Your task to perform on an android device: turn vacation reply on in the gmail app Image 0: 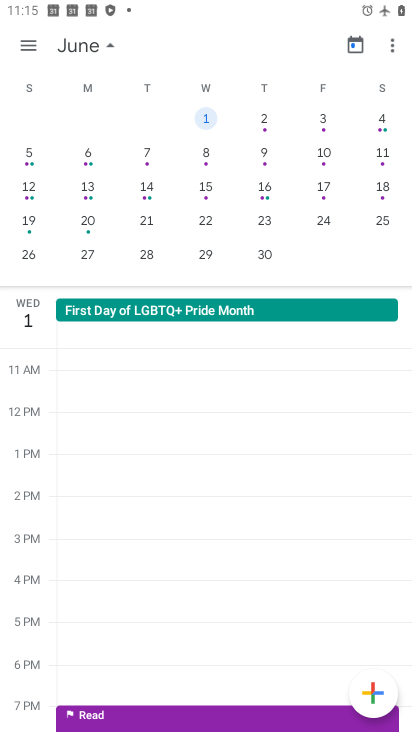
Step 0: press home button
Your task to perform on an android device: turn vacation reply on in the gmail app Image 1: 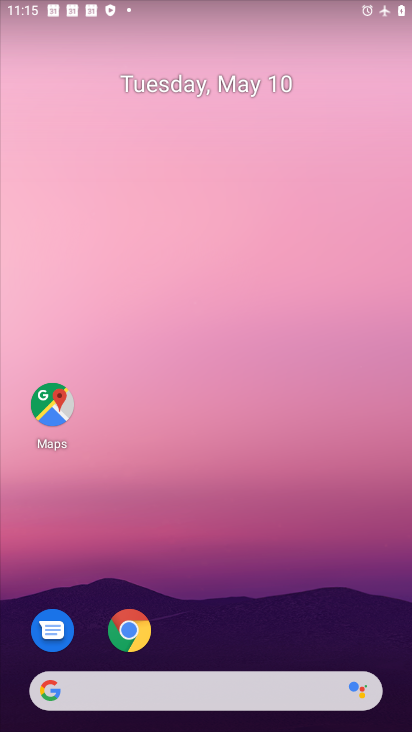
Step 1: drag from (159, 717) to (274, 44)
Your task to perform on an android device: turn vacation reply on in the gmail app Image 2: 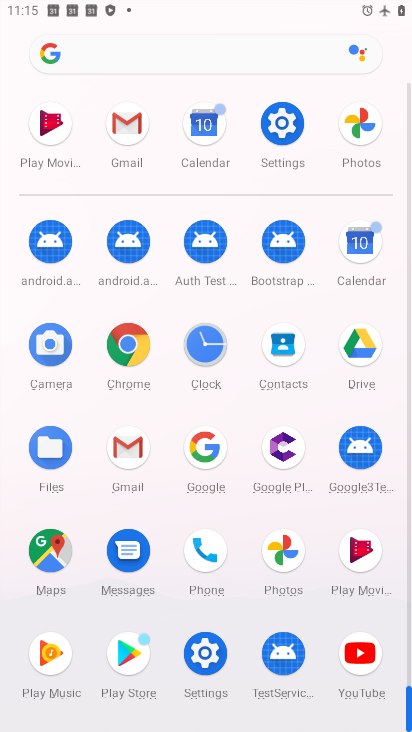
Step 2: click (138, 139)
Your task to perform on an android device: turn vacation reply on in the gmail app Image 3: 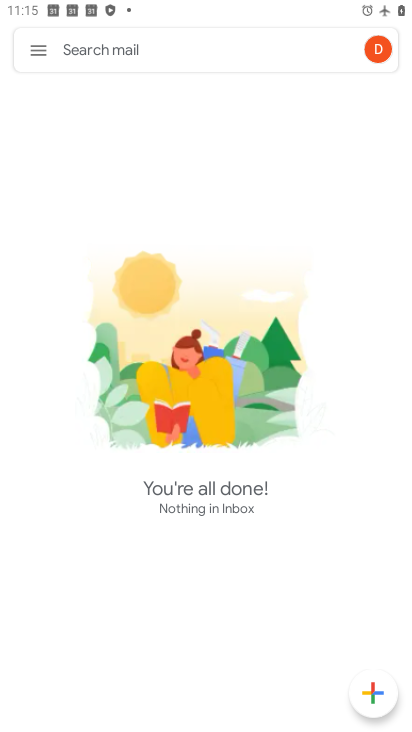
Step 3: click (36, 45)
Your task to perform on an android device: turn vacation reply on in the gmail app Image 4: 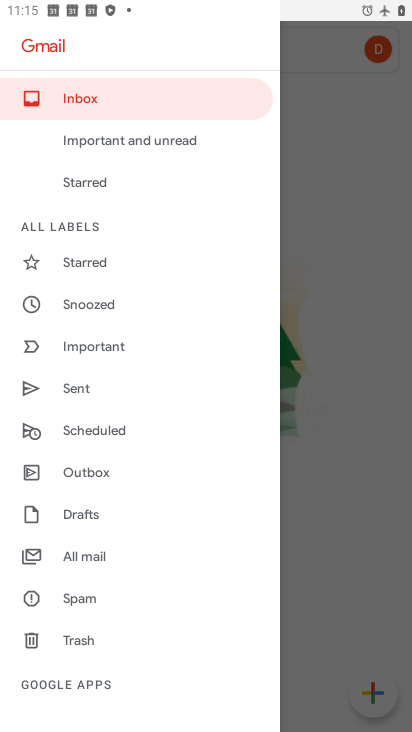
Step 4: drag from (144, 681) to (142, 22)
Your task to perform on an android device: turn vacation reply on in the gmail app Image 5: 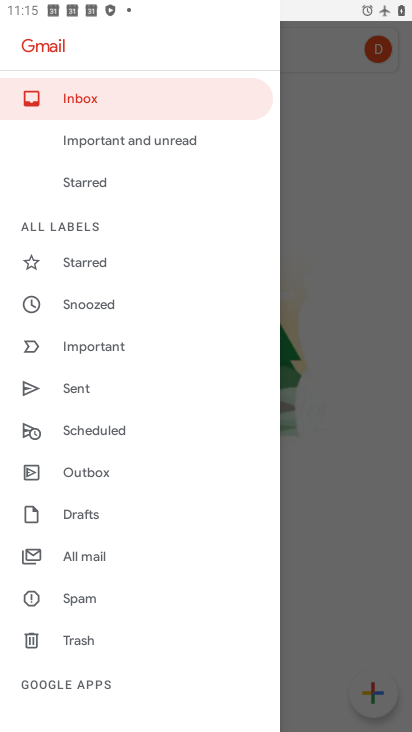
Step 5: drag from (183, 673) to (144, 9)
Your task to perform on an android device: turn vacation reply on in the gmail app Image 6: 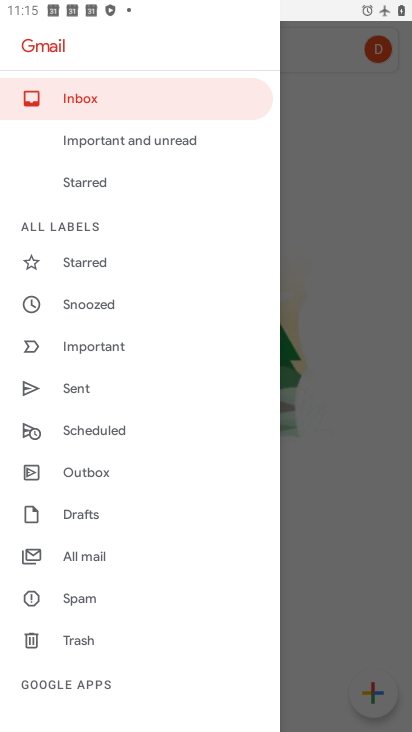
Step 6: drag from (26, 643) to (143, 43)
Your task to perform on an android device: turn vacation reply on in the gmail app Image 7: 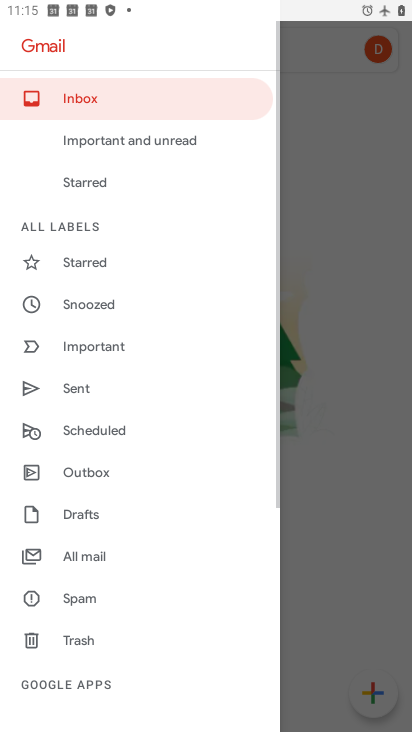
Step 7: drag from (90, 648) to (82, 68)
Your task to perform on an android device: turn vacation reply on in the gmail app Image 8: 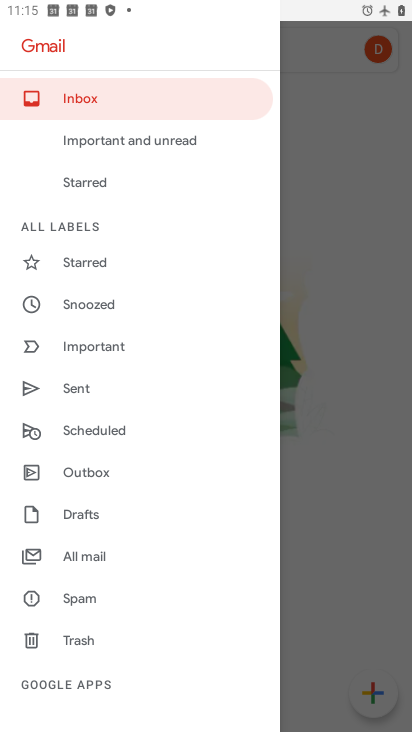
Step 8: drag from (51, 666) to (132, 1)
Your task to perform on an android device: turn vacation reply on in the gmail app Image 9: 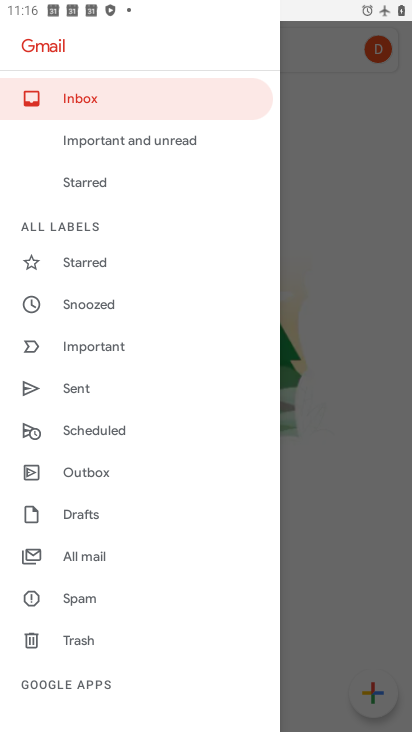
Step 9: drag from (97, 668) to (125, 5)
Your task to perform on an android device: turn vacation reply on in the gmail app Image 10: 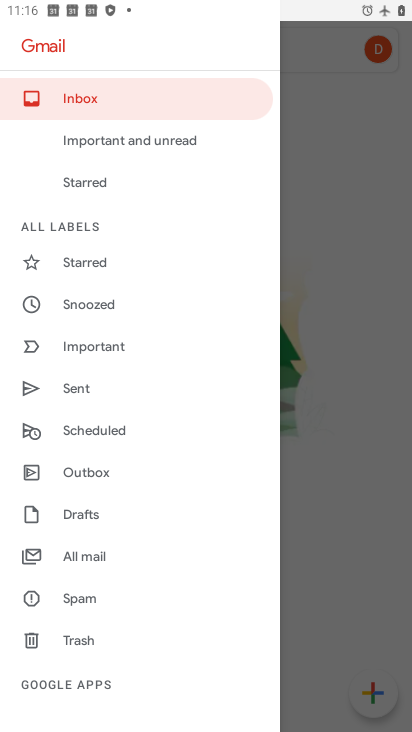
Step 10: drag from (90, 631) to (7, 74)
Your task to perform on an android device: turn vacation reply on in the gmail app Image 11: 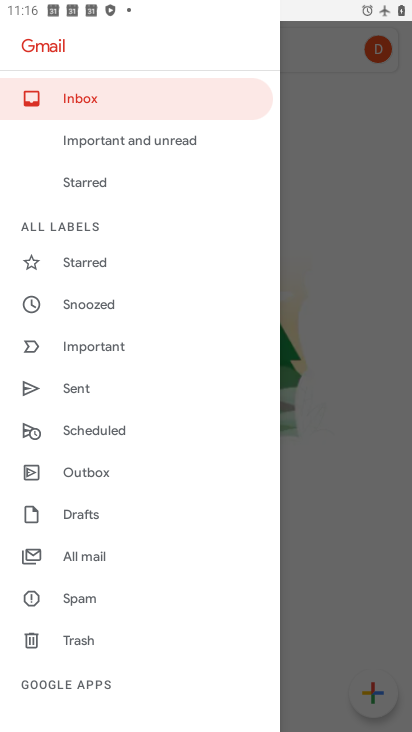
Step 11: drag from (62, 518) to (166, 0)
Your task to perform on an android device: turn vacation reply on in the gmail app Image 12: 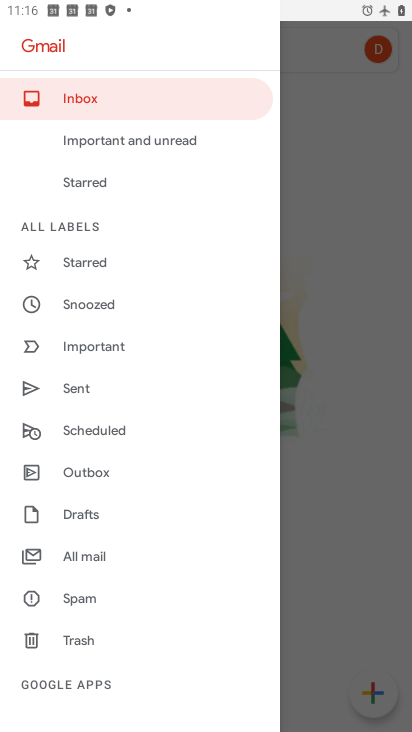
Step 12: drag from (62, 558) to (136, 3)
Your task to perform on an android device: turn vacation reply on in the gmail app Image 13: 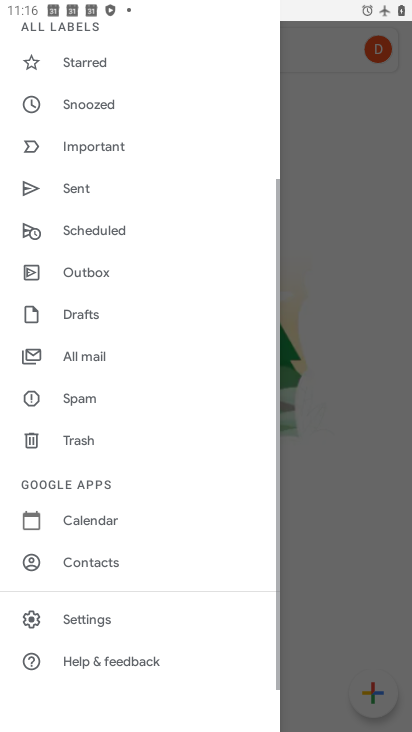
Step 13: click (78, 621)
Your task to perform on an android device: turn vacation reply on in the gmail app Image 14: 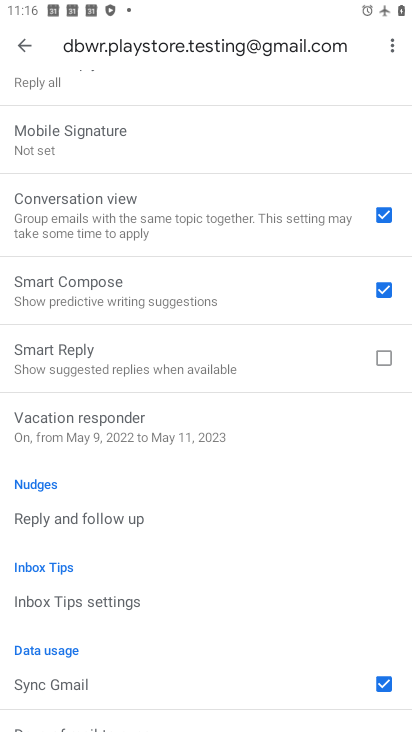
Step 14: click (135, 428)
Your task to perform on an android device: turn vacation reply on in the gmail app Image 15: 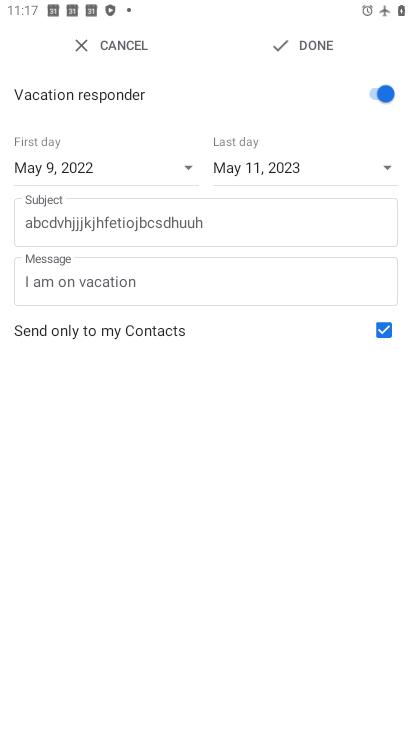
Step 15: click (327, 53)
Your task to perform on an android device: turn vacation reply on in the gmail app Image 16: 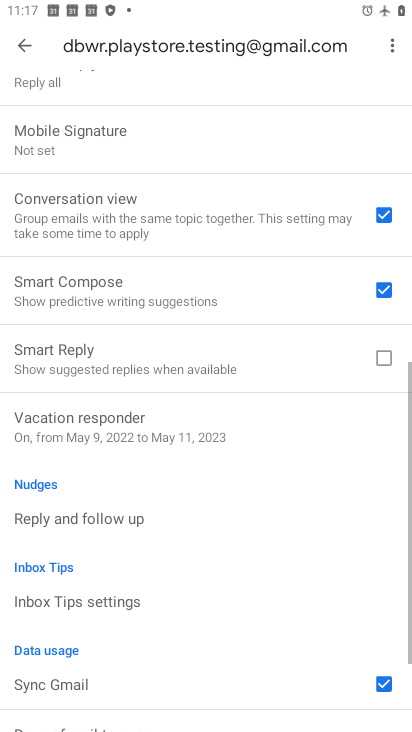
Step 16: task complete